Your task to perform on an android device: Go to Google Image 0: 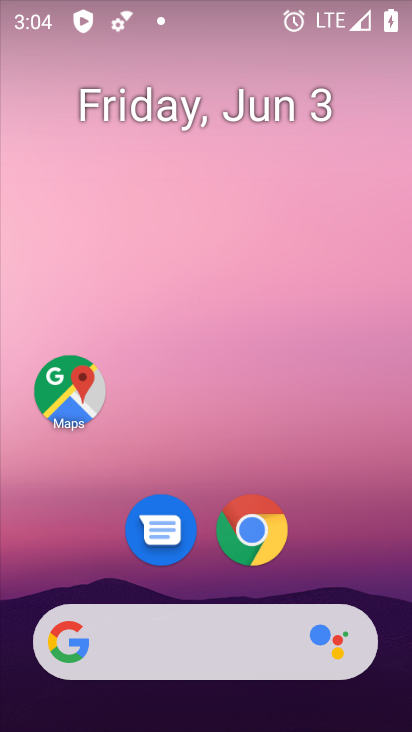
Step 0: click (0, 437)
Your task to perform on an android device: Go to Google Image 1: 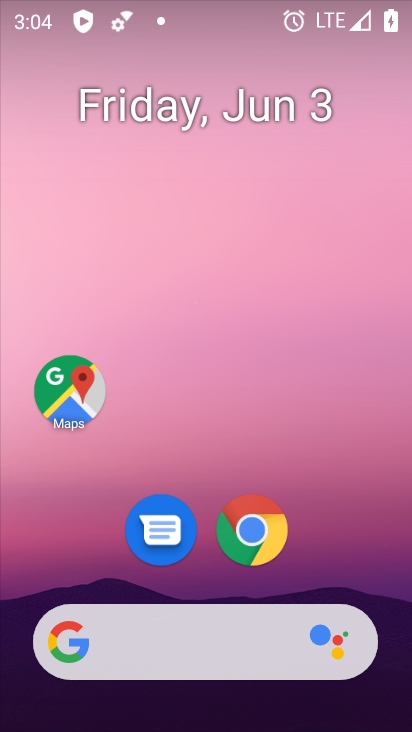
Step 1: drag from (152, 728) to (144, 30)
Your task to perform on an android device: Go to Google Image 2: 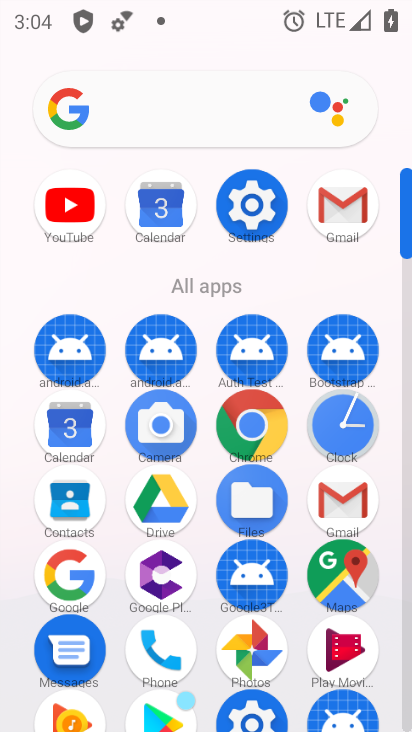
Step 2: click (80, 583)
Your task to perform on an android device: Go to Google Image 3: 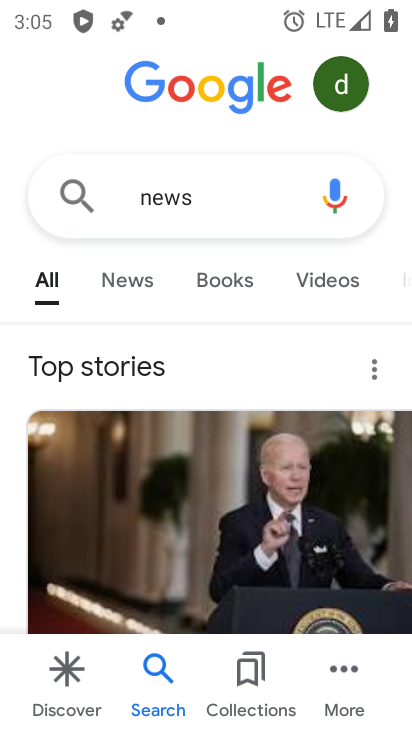
Step 3: task complete